Your task to perform on an android device: When is my next appointment? Image 0: 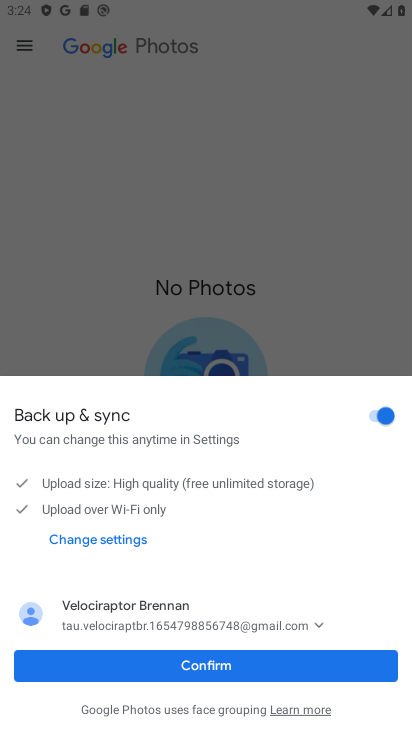
Step 0: click (129, 218)
Your task to perform on an android device: When is my next appointment? Image 1: 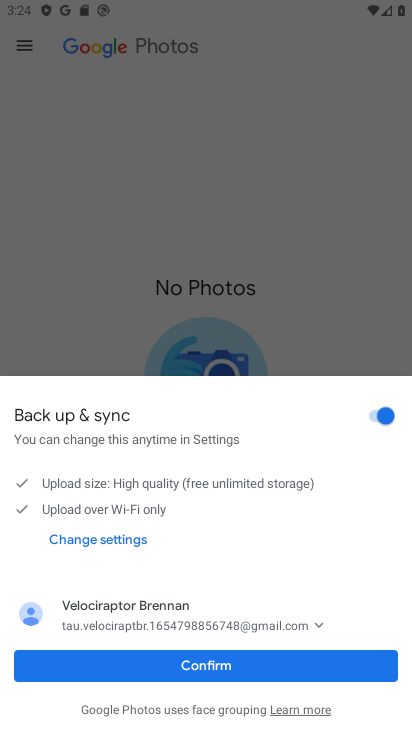
Step 1: click (127, 219)
Your task to perform on an android device: When is my next appointment? Image 2: 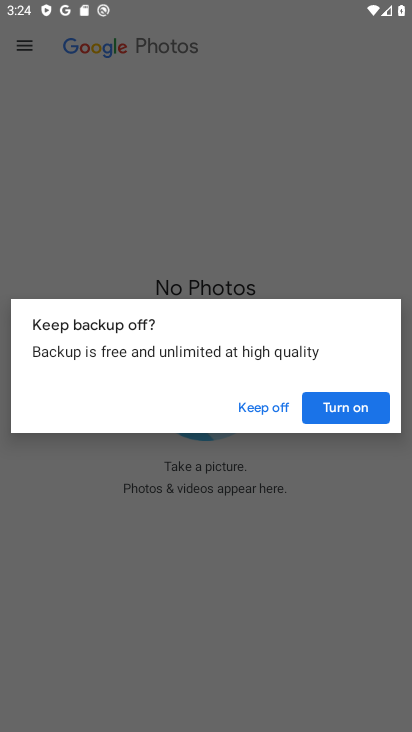
Step 2: click (262, 403)
Your task to perform on an android device: When is my next appointment? Image 3: 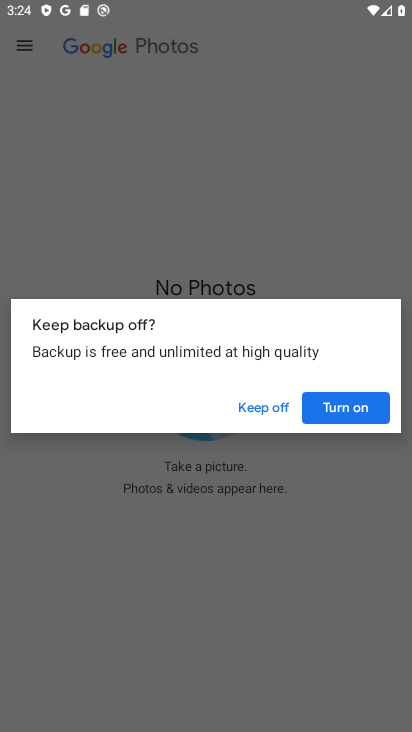
Step 3: click (260, 402)
Your task to perform on an android device: When is my next appointment? Image 4: 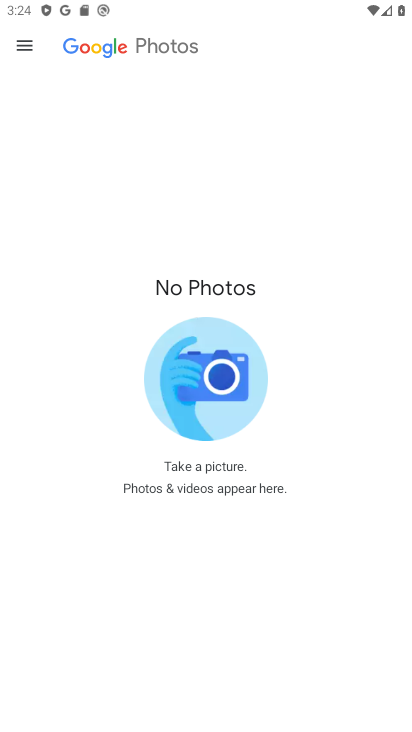
Step 4: press back button
Your task to perform on an android device: When is my next appointment? Image 5: 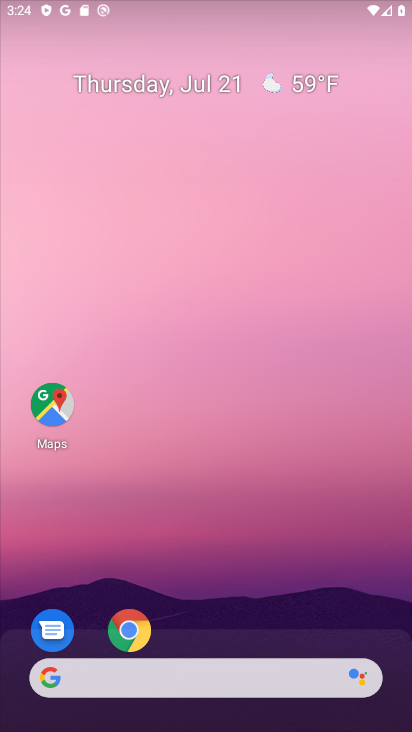
Step 5: drag from (232, 566) to (198, 96)
Your task to perform on an android device: When is my next appointment? Image 6: 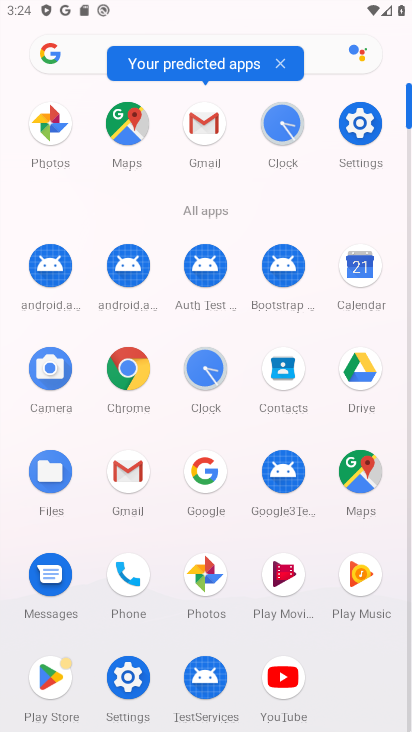
Step 6: click (357, 266)
Your task to perform on an android device: When is my next appointment? Image 7: 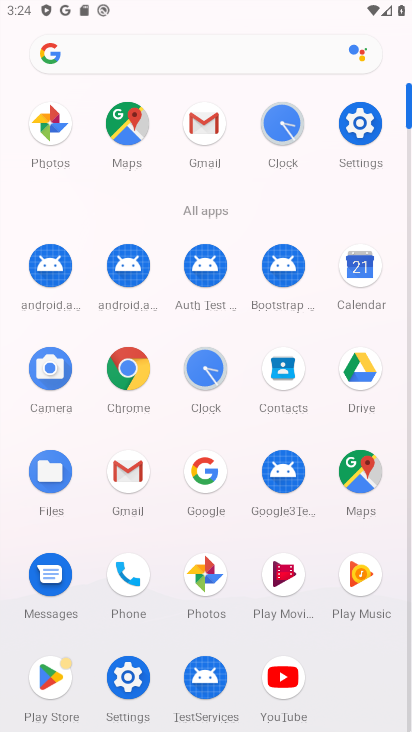
Step 7: click (357, 266)
Your task to perform on an android device: When is my next appointment? Image 8: 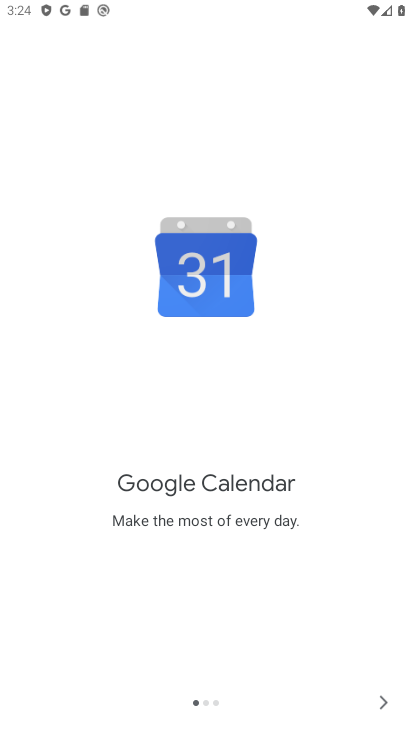
Step 8: click (398, 696)
Your task to perform on an android device: When is my next appointment? Image 9: 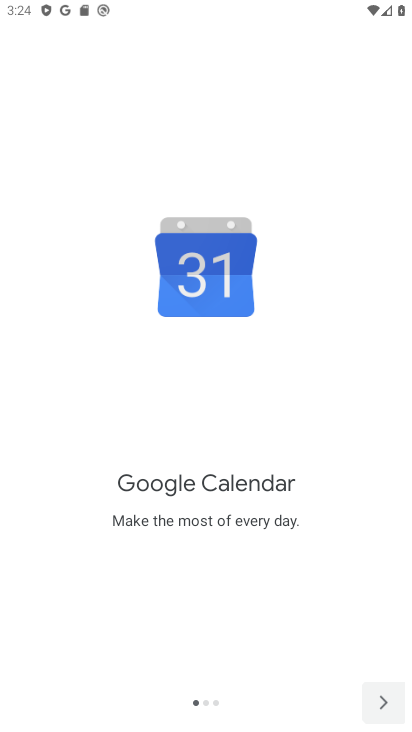
Step 9: click (383, 703)
Your task to perform on an android device: When is my next appointment? Image 10: 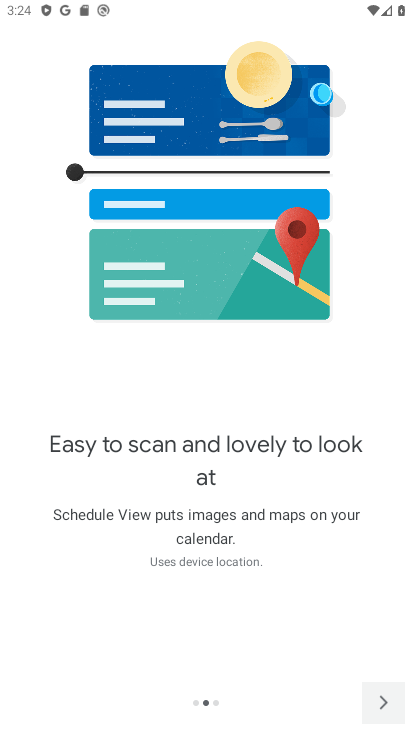
Step 10: click (380, 705)
Your task to perform on an android device: When is my next appointment? Image 11: 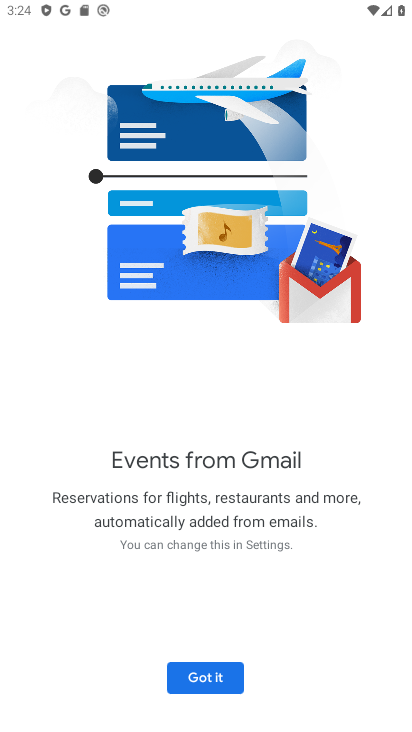
Step 11: click (225, 680)
Your task to perform on an android device: When is my next appointment? Image 12: 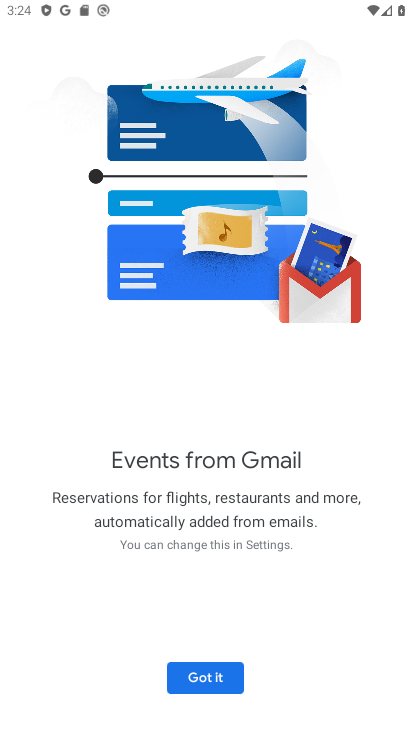
Step 12: click (226, 674)
Your task to perform on an android device: When is my next appointment? Image 13: 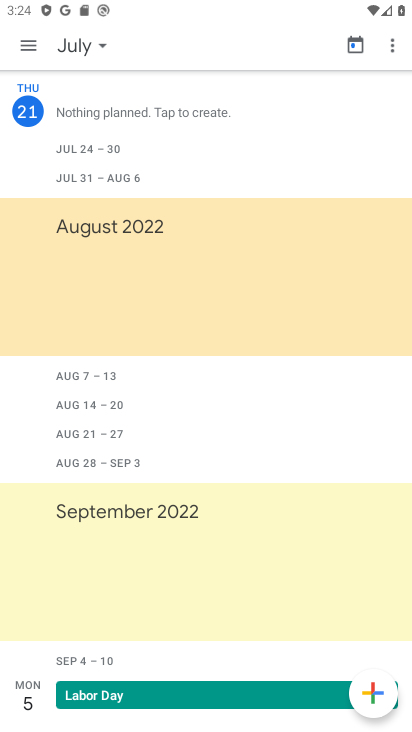
Step 13: click (101, 45)
Your task to perform on an android device: When is my next appointment? Image 14: 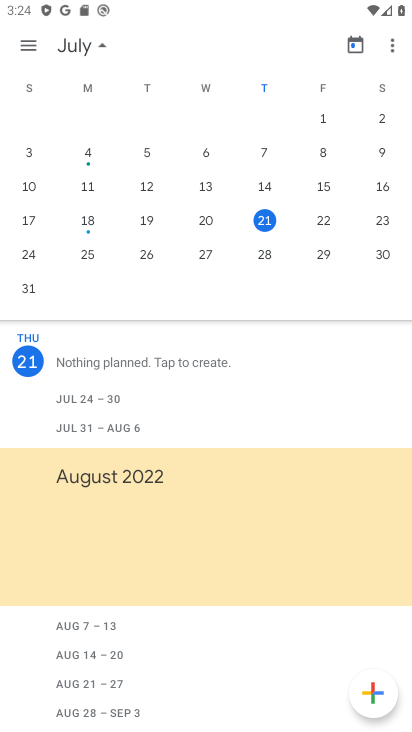
Step 14: click (98, 50)
Your task to perform on an android device: When is my next appointment? Image 15: 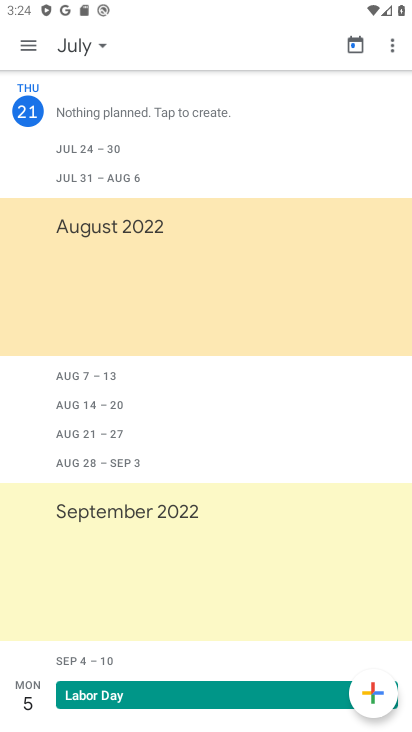
Step 15: task complete